Your task to perform on an android device: Open calendar and show me the fourth week of next month Image 0: 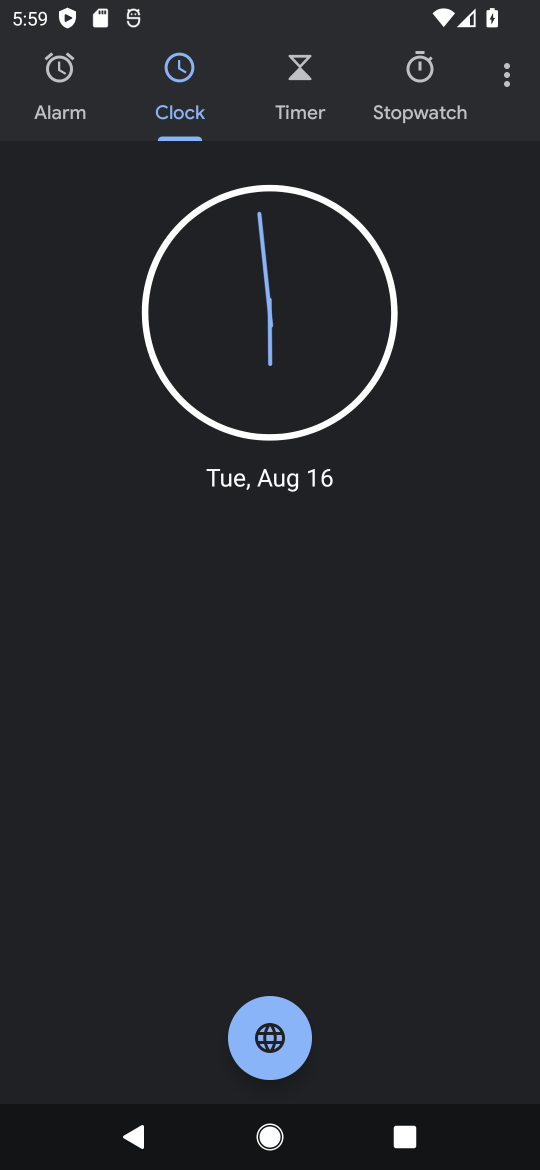
Step 0: press home button
Your task to perform on an android device: Open calendar and show me the fourth week of next month Image 1: 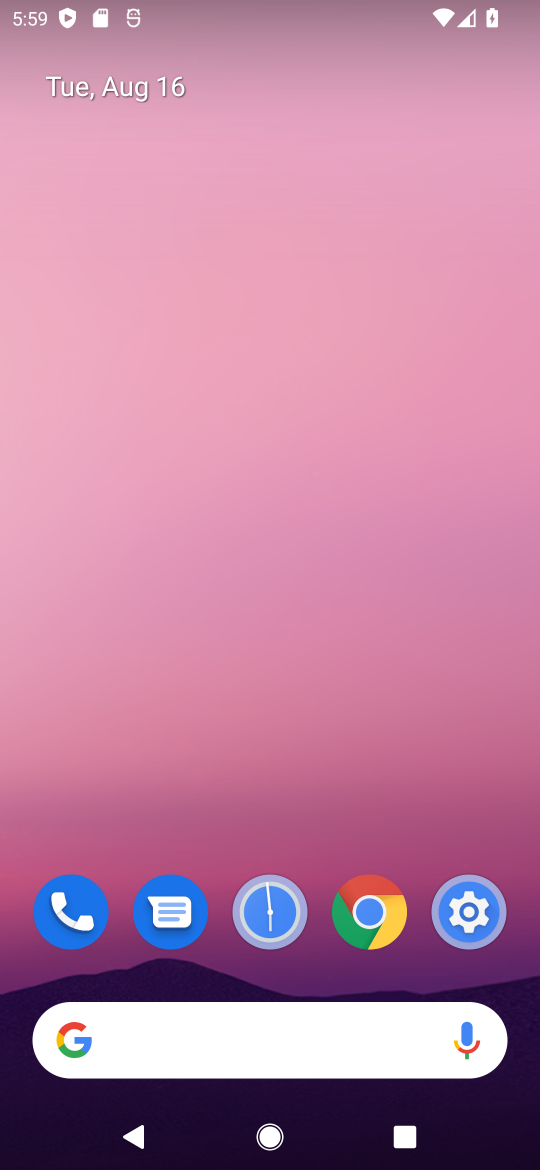
Step 1: drag from (429, 976) to (365, 369)
Your task to perform on an android device: Open calendar and show me the fourth week of next month Image 2: 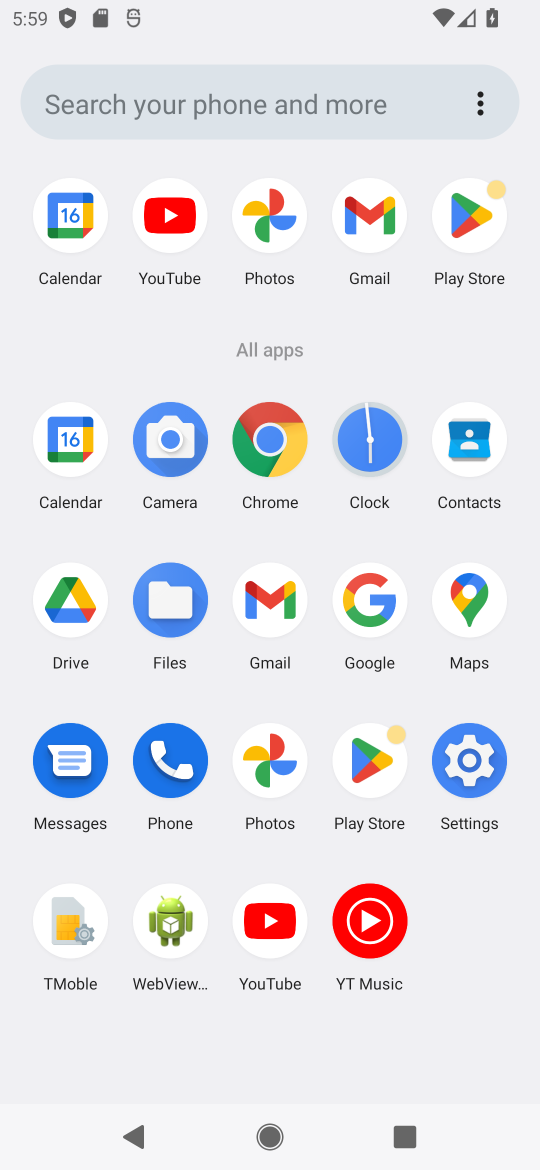
Step 2: click (69, 441)
Your task to perform on an android device: Open calendar and show me the fourth week of next month Image 3: 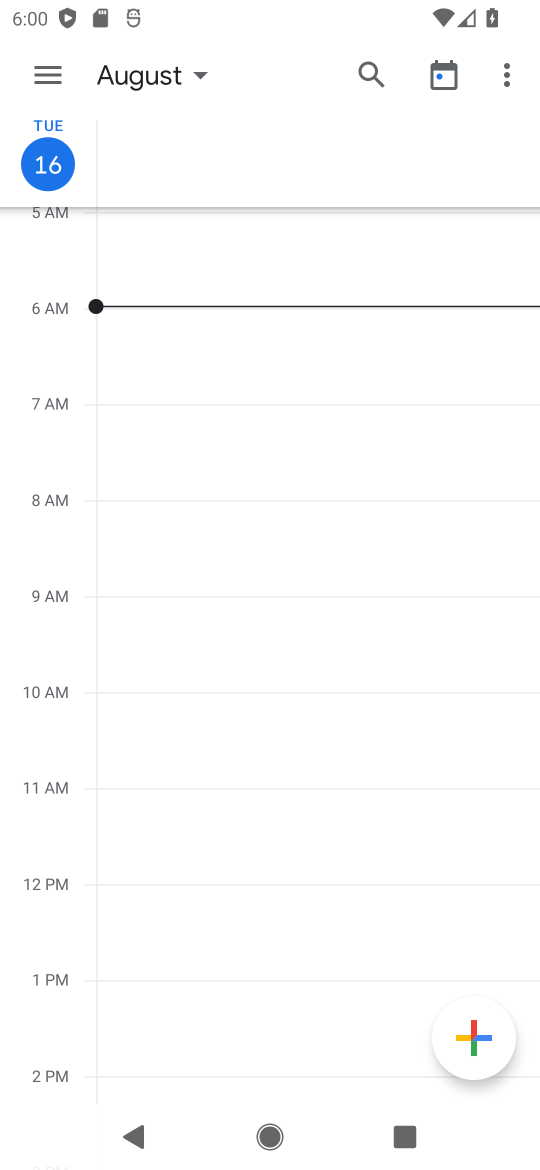
Step 3: click (49, 82)
Your task to perform on an android device: Open calendar and show me the fourth week of next month Image 4: 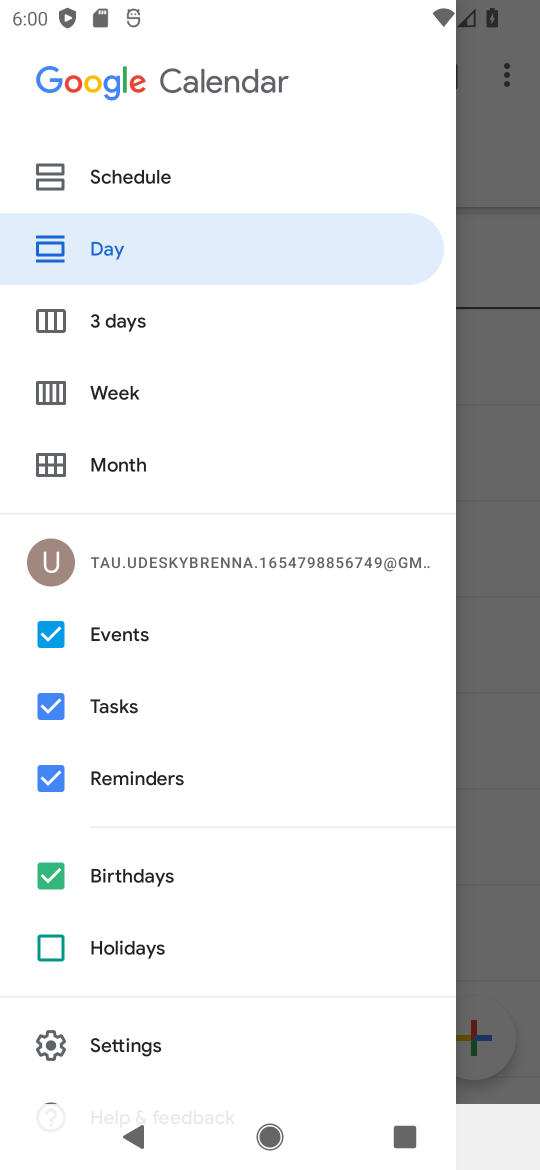
Step 4: click (115, 388)
Your task to perform on an android device: Open calendar and show me the fourth week of next month Image 5: 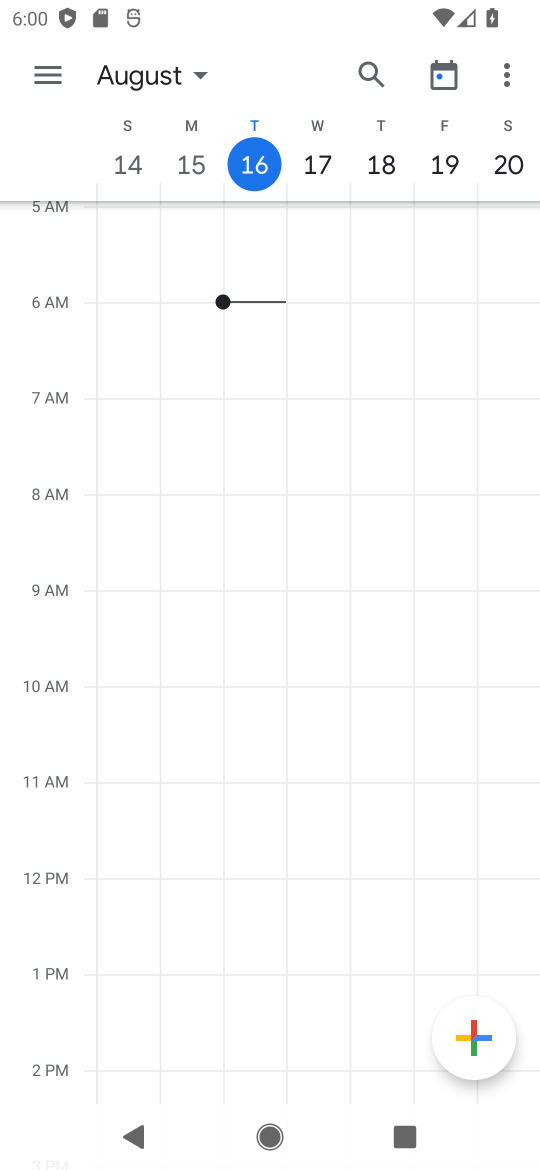
Step 5: click (196, 78)
Your task to perform on an android device: Open calendar and show me the fourth week of next month Image 6: 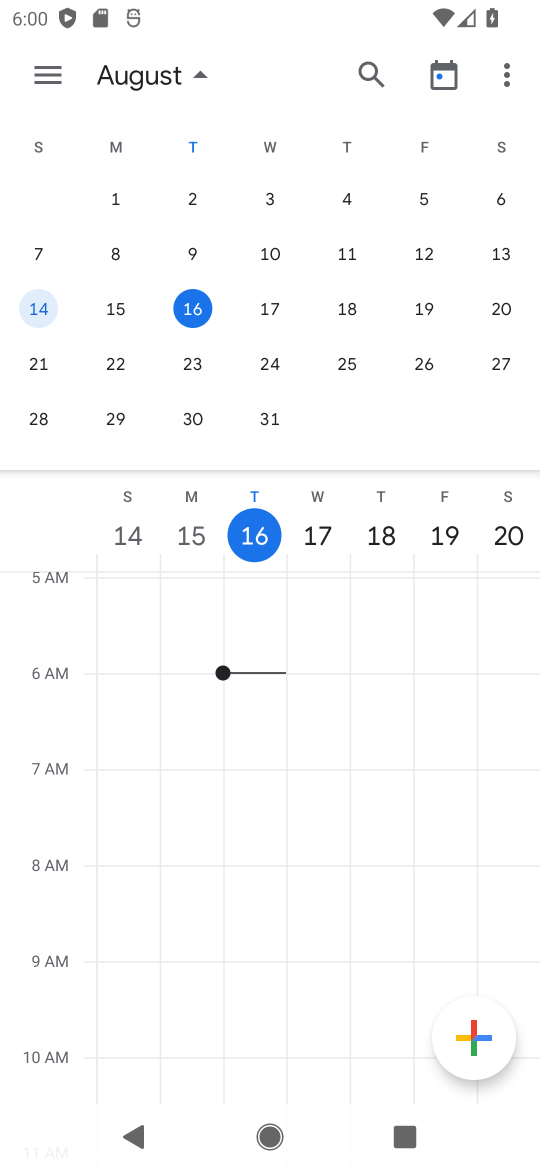
Step 6: drag from (500, 301) to (42, 279)
Your task to perform on an android device: Open calendar and show me the fourth week of next month Image 7: 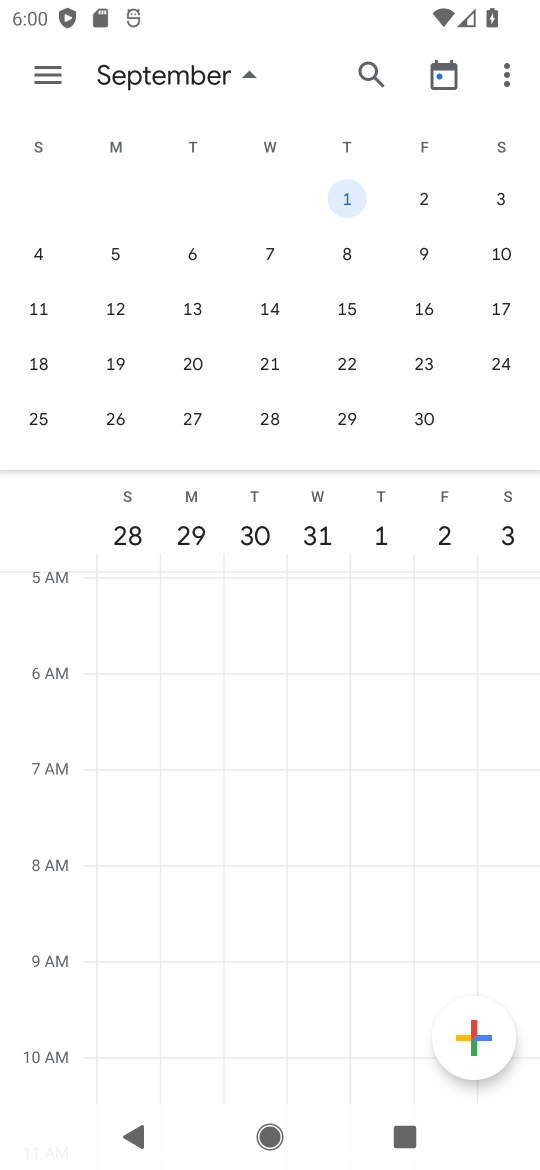
Step 7: click (42, 415)
Your task to perform on an android device: Open calendar and show me the fourth week of next month Image 8: 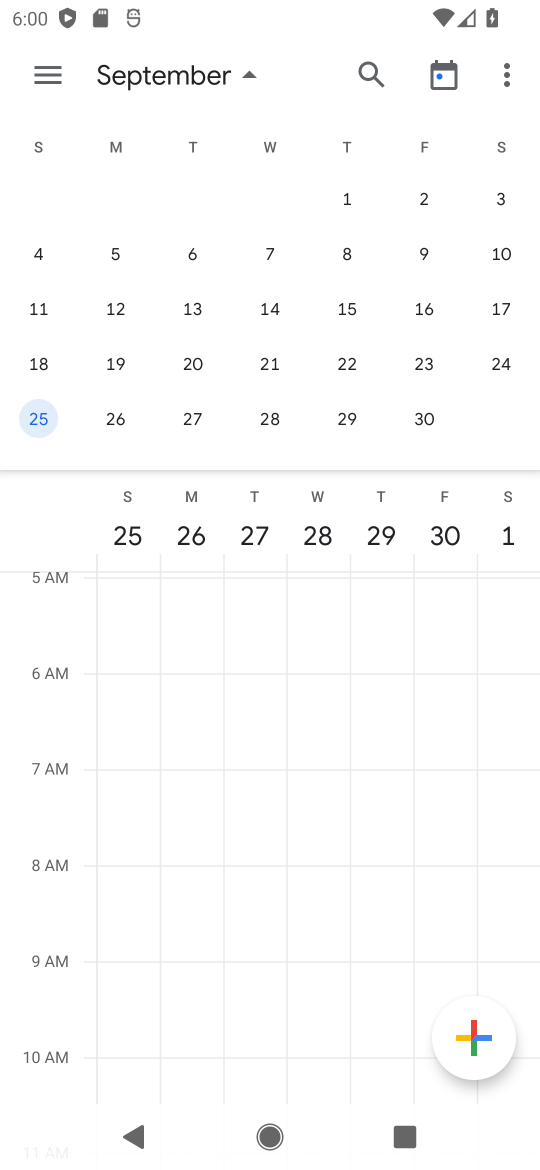
Step 8: drag from (317, 688) to (311, 109)
Your task to perform on an android device: Open calendar and show me the fourth week of next month Image 9: 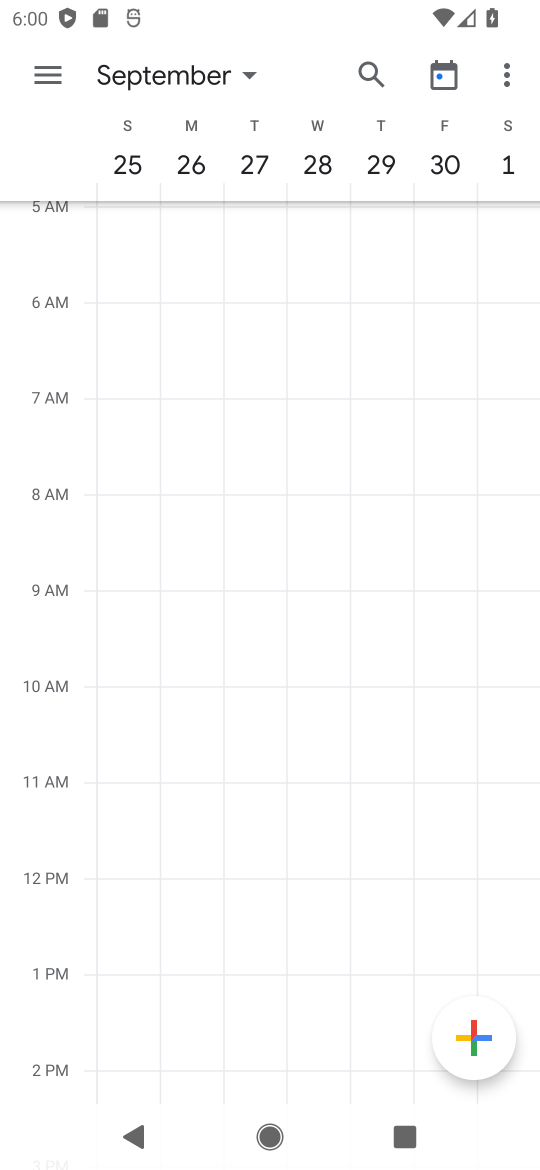
Step 9: drag from (239, 306) to (294, 771)
Your task to perform on an android device: Open calendar and show me the fourth week of next month Image 10: 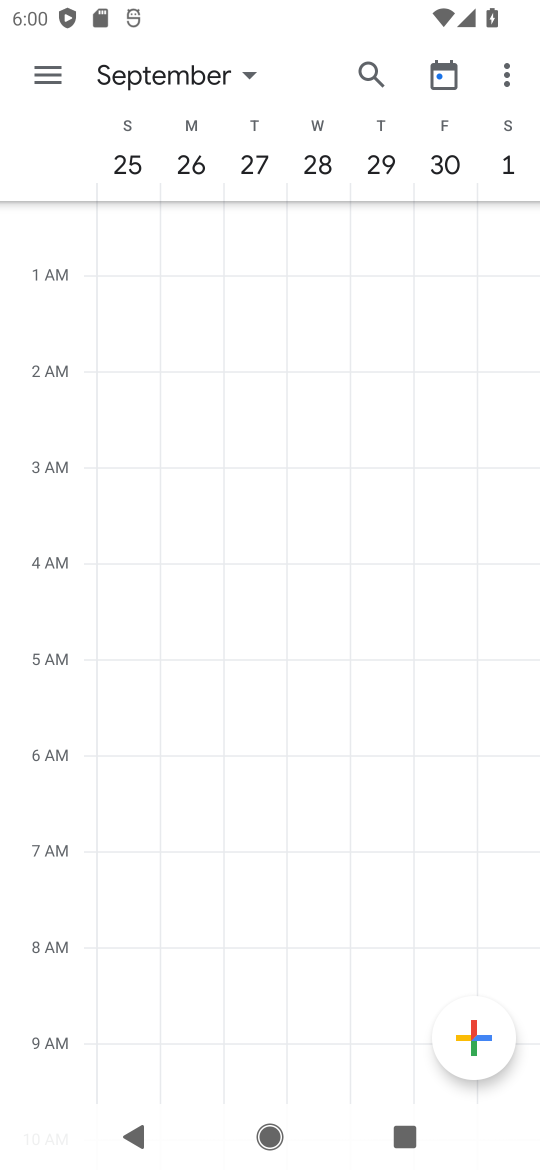
Step 10: click (328, 307)
Your task to perform on an android device: Open calendar and show me the fourth week of next month Image 11: 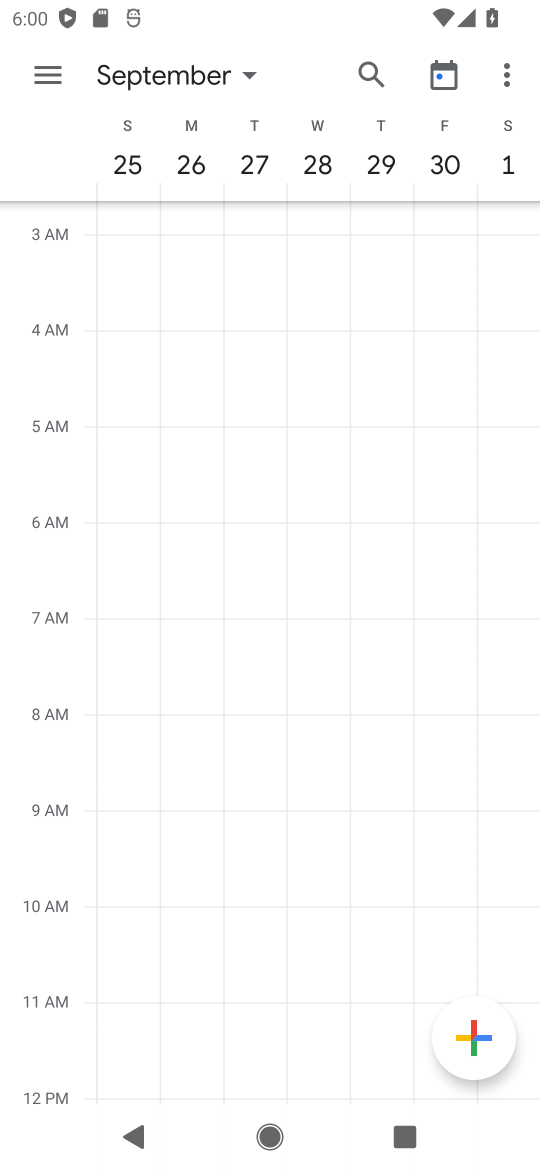
Step 11: task complete